Your task to perform on an android device: Open accessibility settings Image 0: 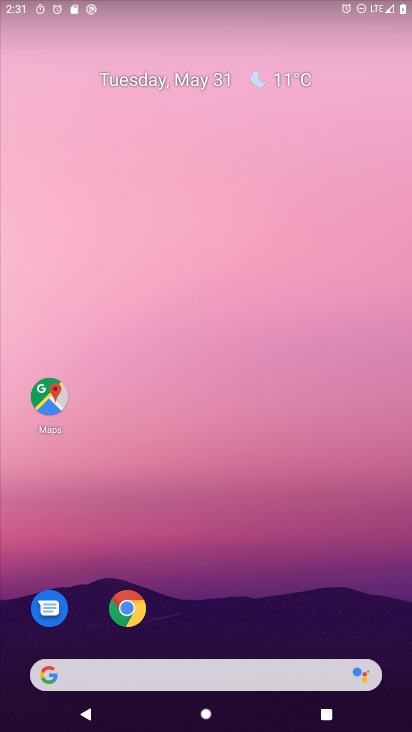
Step 0: drag from (306, 626) to (341, 4)
Your task to perform on an android device: Open accessibility settings Image 1: 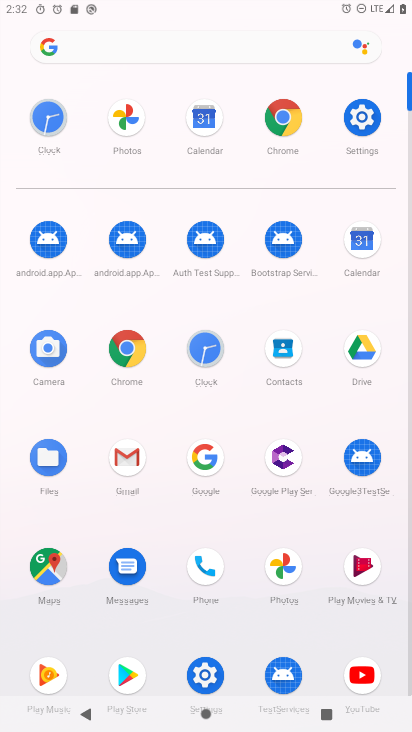
Step 1: click (364, 121)
Your task to perform on an android device: Open accessibility settings Image 2: 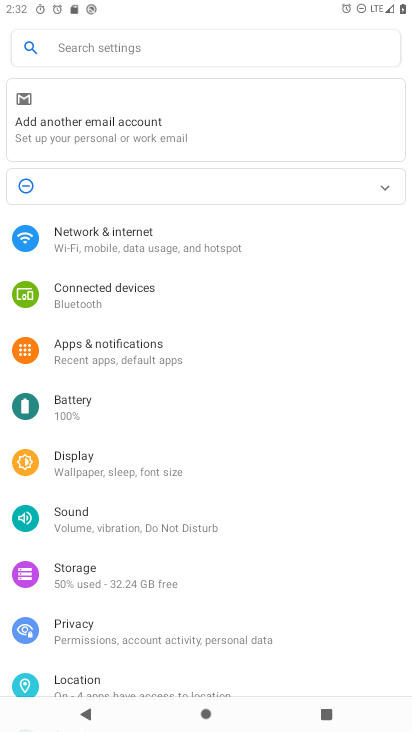
Step 2: drag from (312, 629) to (321, 202)
Your task to perform on an android device: Open accessibility settings Image 3: 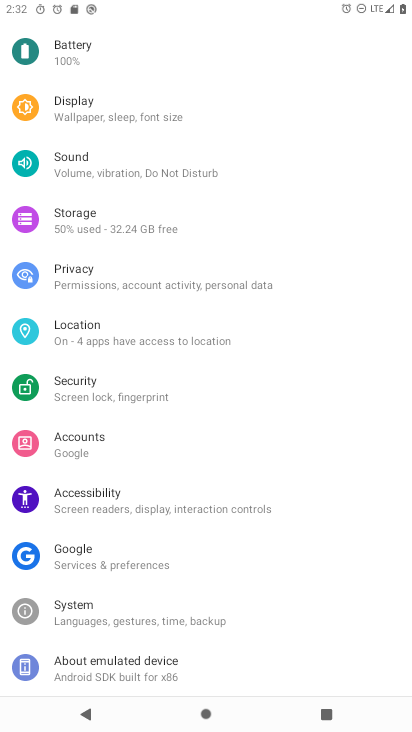
Step 3: drag from (291, 576) to (278, 246)
Your task to perform on an android device: Open accessibility settings Image 4: 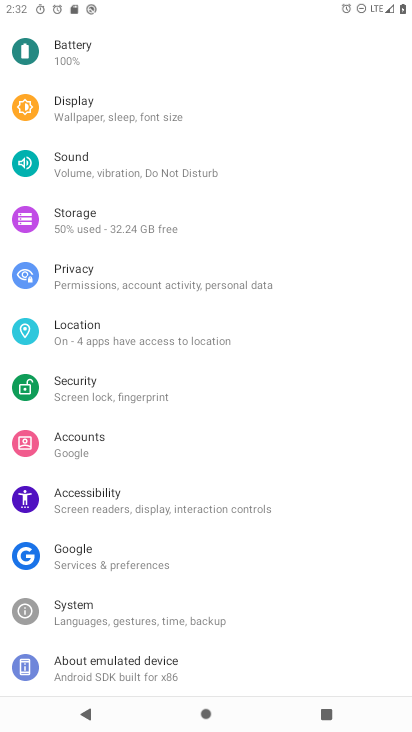
Step 4: click (83, 501)
Your task to perform on an android device: Open accessibility settings Image 5: 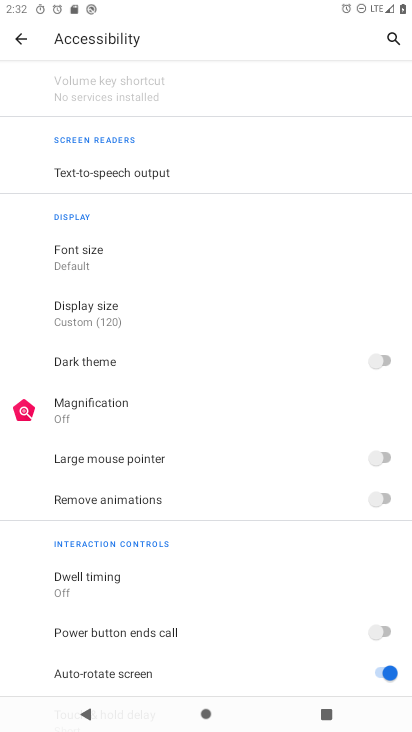
Step 5: task complete